Your task to perform on an android device: show emergency info Image 0: 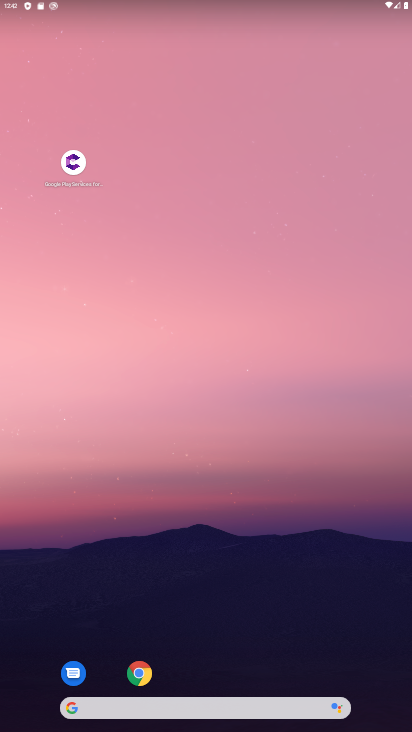
Step 0: drag from (214, 612) to (243, 84)
Your task to perform on an android device: show emergency info Image 1: 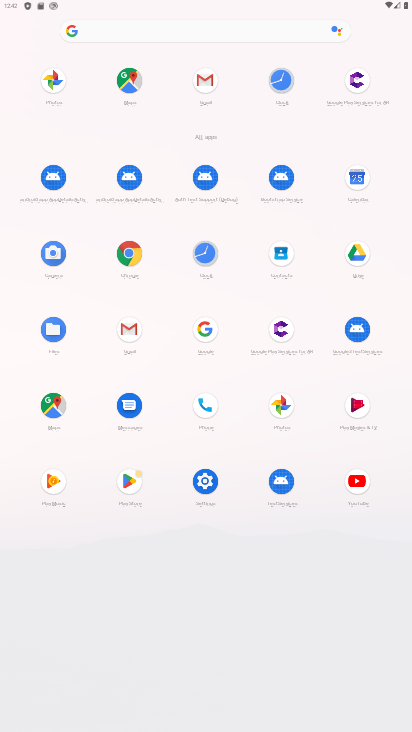
Step 1: click (204, 470)
Your task to perform on an android device: show emergency info Image 2: 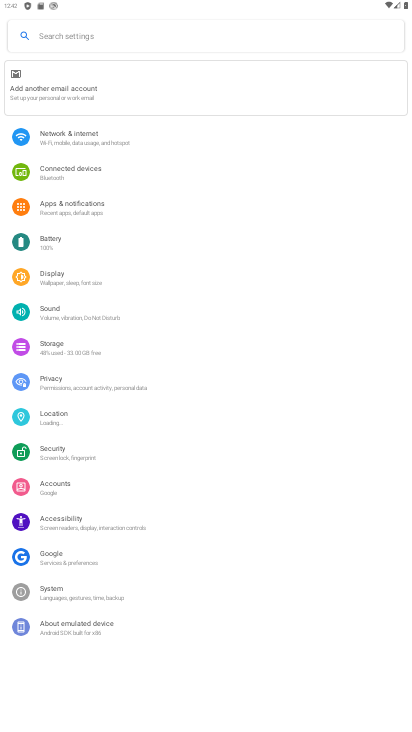
Step 2: click (72, 616)
Your task to perform on an android device: show emergency info Image 3: 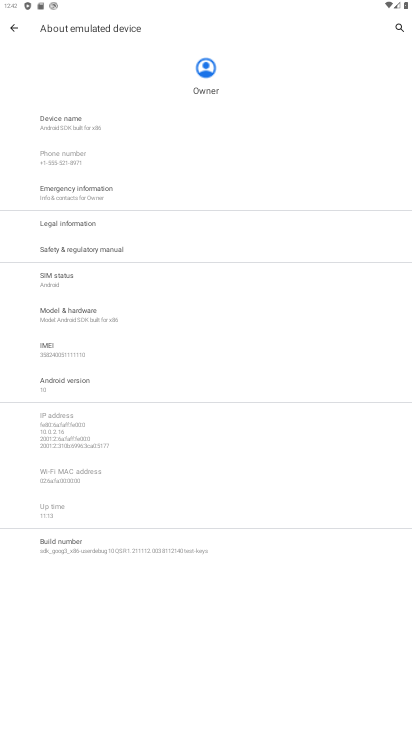
Step 3: click (78, 184)
Your task to perform on an android device: show emergency info Image 4: 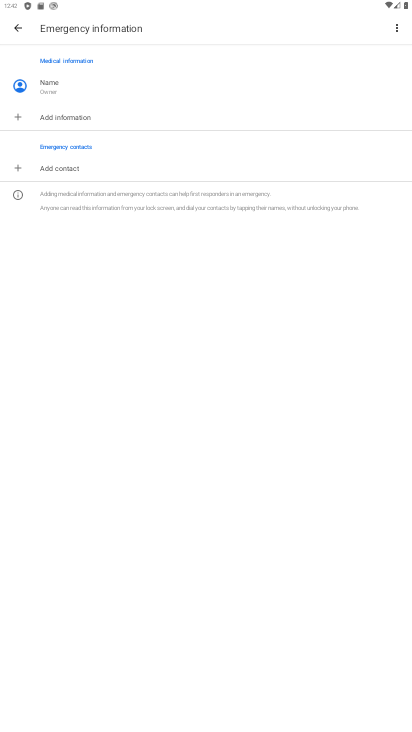
Step 4: task complete